Your task to perform on an android device: Go to calendar. Show me events next week Image 0: 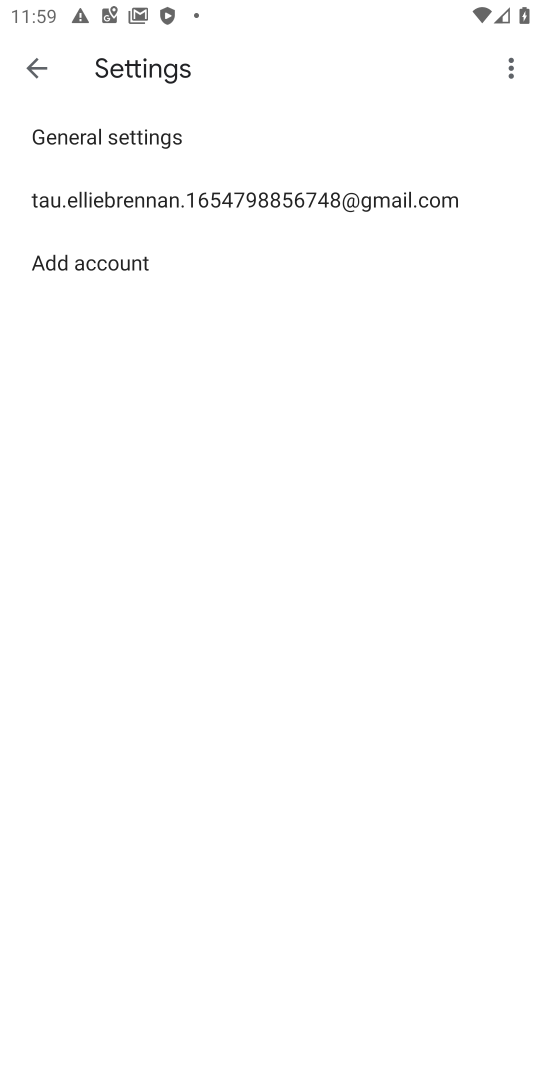
Step 0: press home button
Your task to perform on an android device: Go to calendar. Show me events next week Image 1: 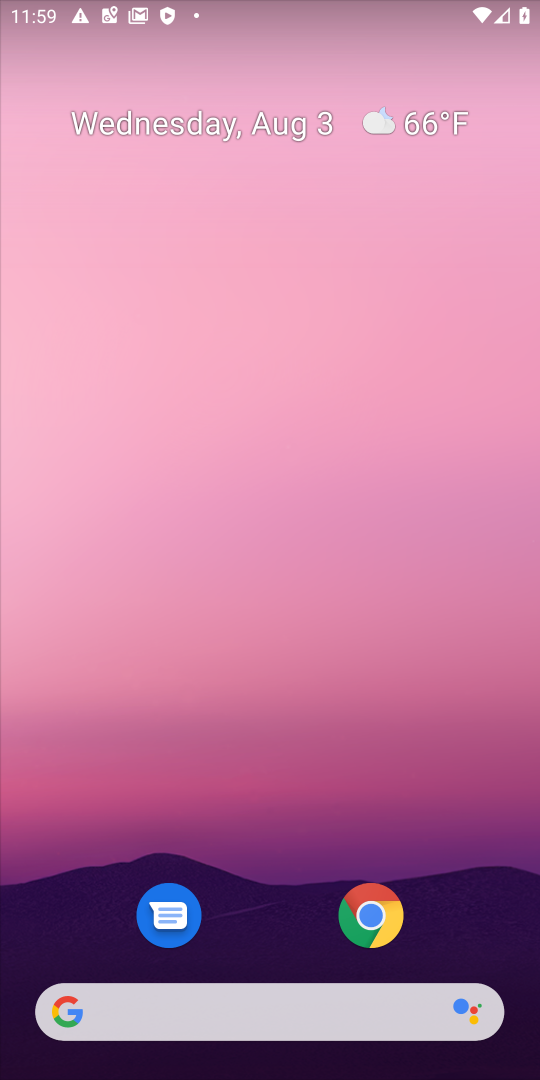
Step 1: drag from (294, 735) to (284, 449)
Your task to perform on an android device: Go to calendar. Show me events next week Image 2: 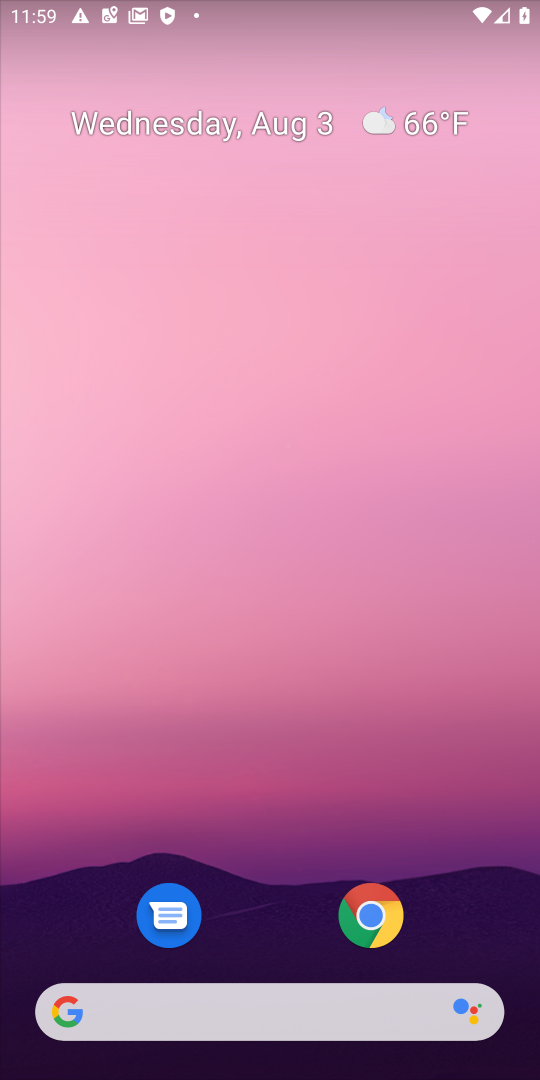
Step 2: drag from (296, 665) to (287, 310)
Your task to perform on an android device: Go to calendar. Show me events next week Image 3: 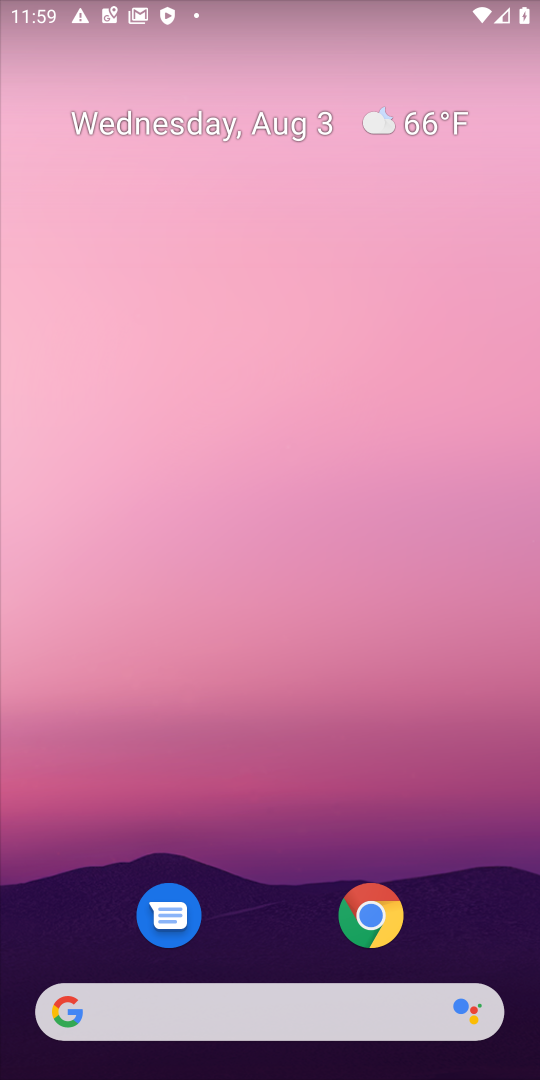
Step 3: drag from (316, 550) to (267, 60)
Your task to perform on an android device: Go to calendar. Show me events next week Image 4: 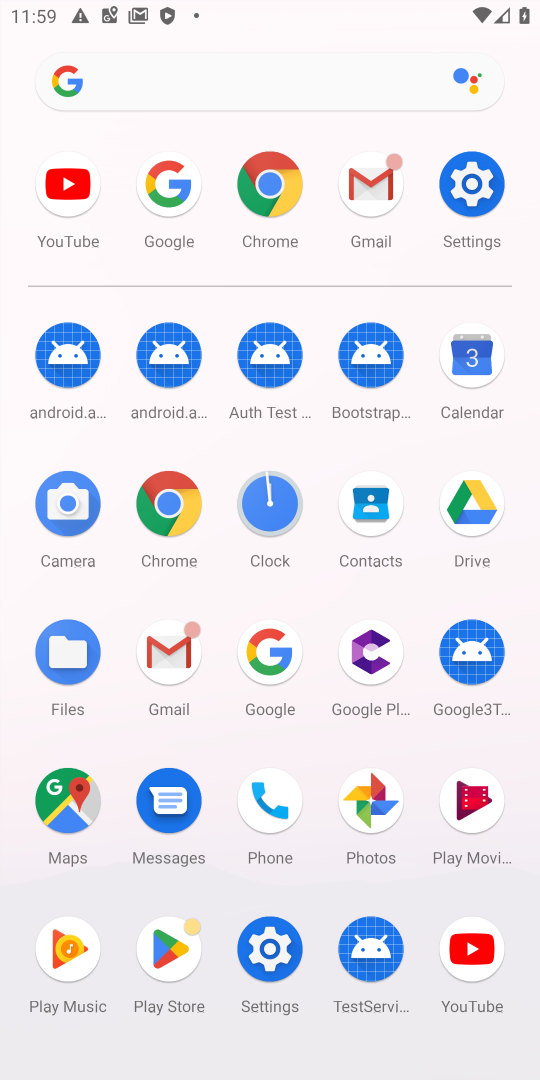
Step 4: click (476, 382)
Your task to perform on an android device: Go to calendar. Show me events next week Image 5: 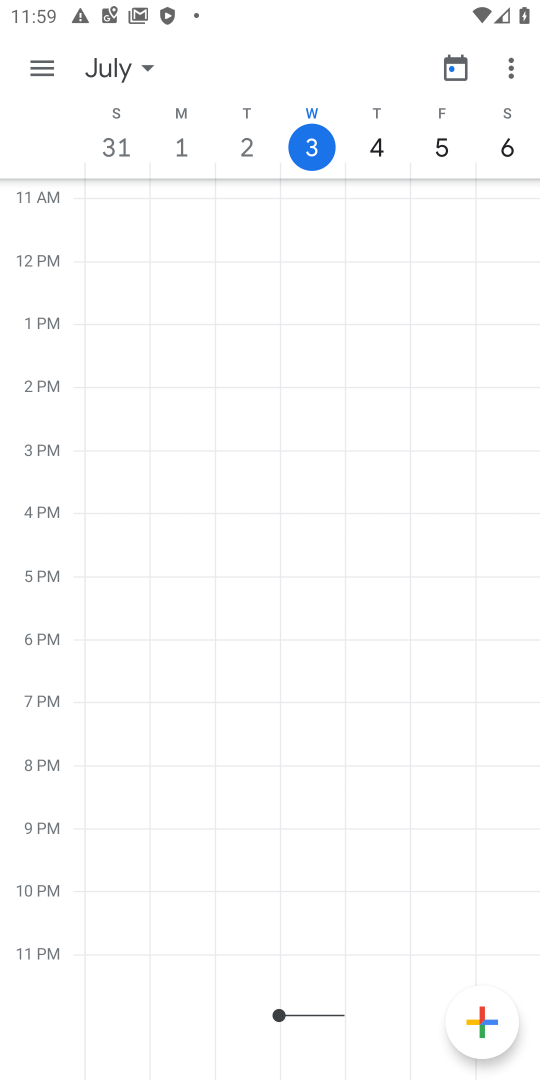
Step 5: click (136, 71)
Your task to perform on an android device: Go to calendar. Show me events next week Image 6: 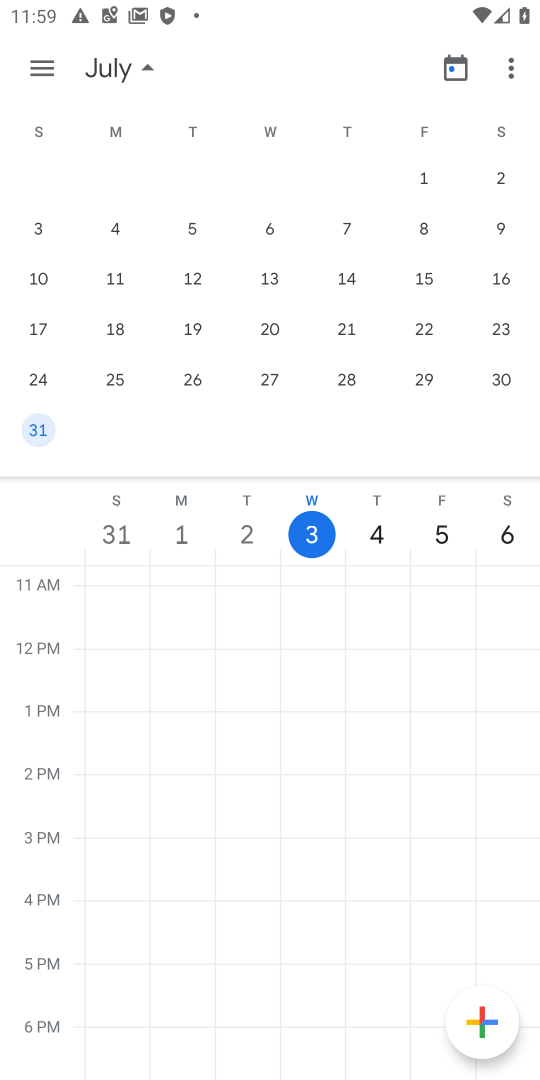
Step 6: drag from (40, 301) to (10, 216)
Your task to perform on an android device: Go to calendar. Show me events next week Image 7: 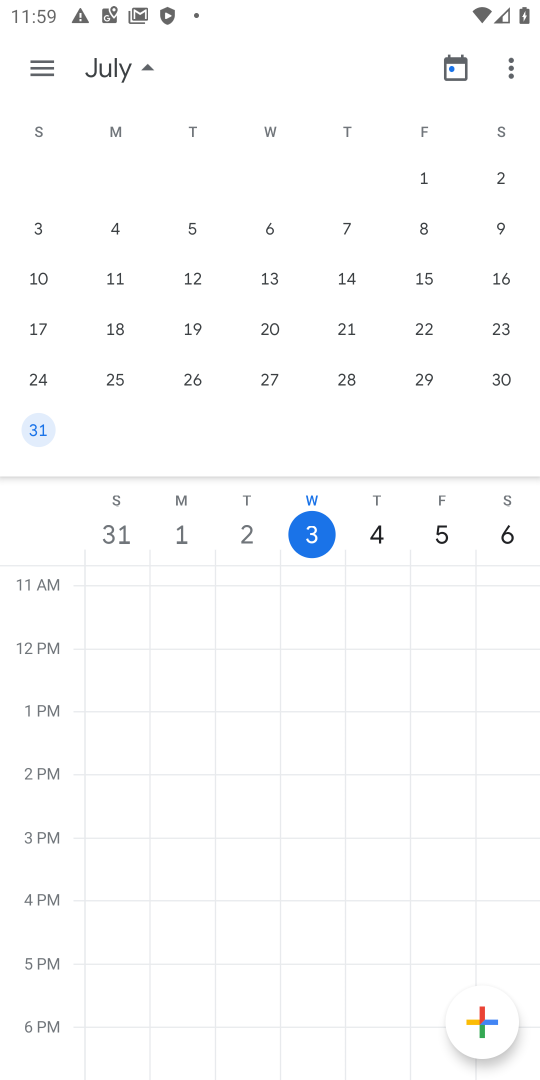
Step 7: drag from (486, 262) to (14, 283)
Your task to perform on an android device: Go to calendar. Show me events next week Image 8: 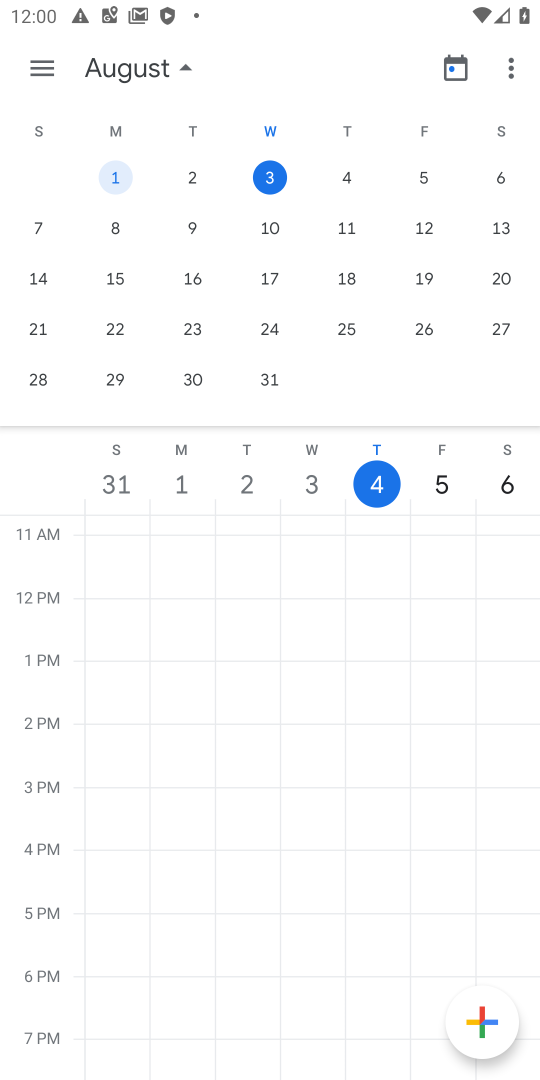
Step 8: click (41, 227)
Your task to perform on an android device: Go to calendar. Show me events next week Image 9: 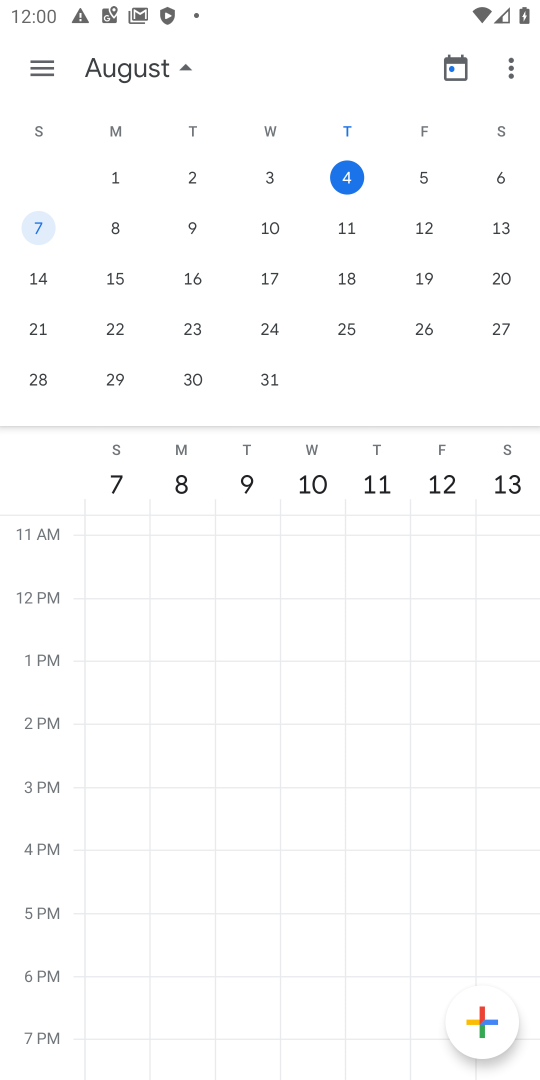
Step 9: task complete